Your task to perform on an android device: turn off notifications in google photos Image 0: 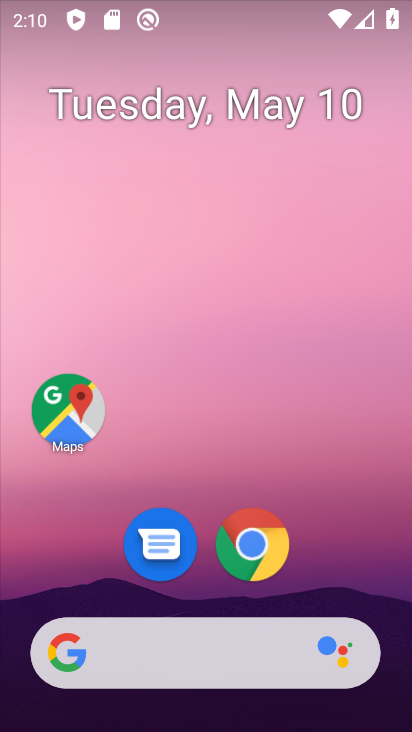
Step 0: drag from (216, 671) to (220, 140)
Your task to perform on an android device: turn off notifications in google photos Image 1: 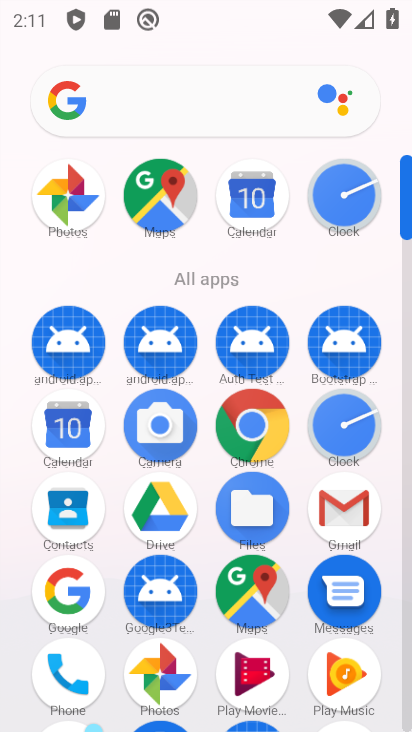
Step 1: drag from (208, 616) to (217, 271)
Your task to perform on an android device: turn off notifications in google photos Image 2: 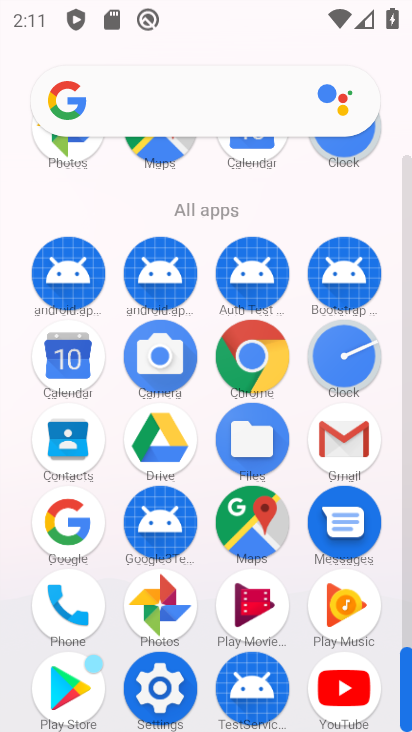
Step 2: click (165, 601)
Your task to perform on an android device: turn off notifications in google photos Image 3: 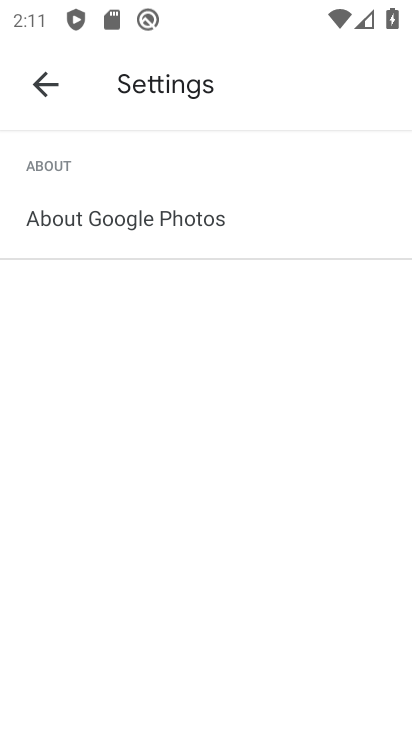
Step 3: click (45, 82)
Your task to perform on an android device: turn off notifications in google photos Image 4: 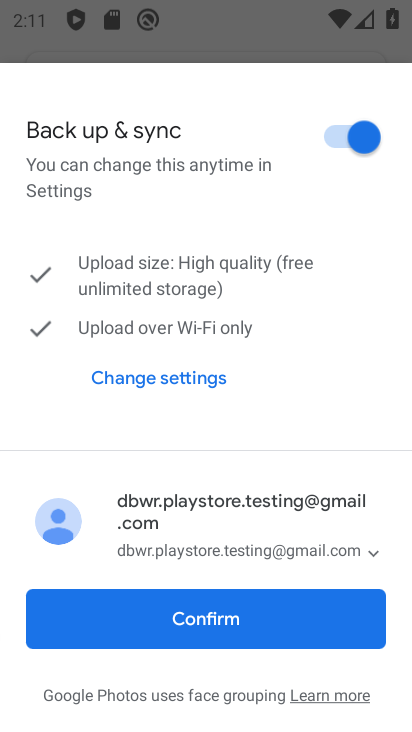
Step 4: click (205, 619)
Your task to perform on an android device: turn off notifications in google photos Image 5: 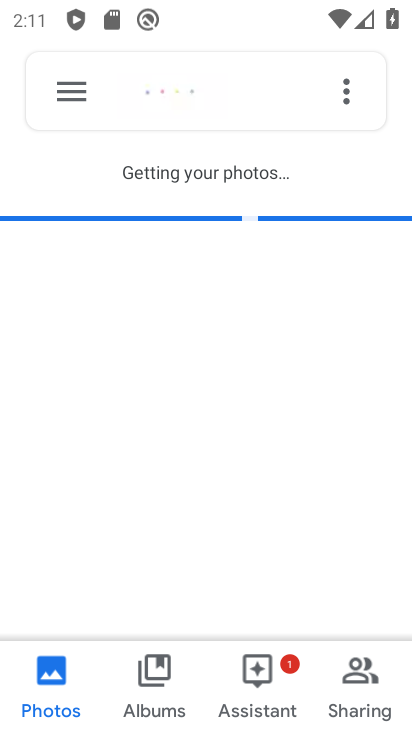
Step 5: click (66, 85)
Your task to perform on an android device: turn off notifications in google photos Image 6: 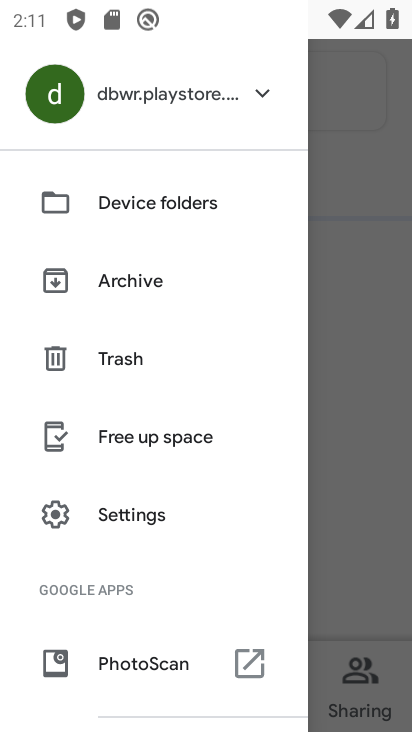
Step 6: click (133, 515)
Your task to perform on an android device: turn off notifications in google photos Image 7: 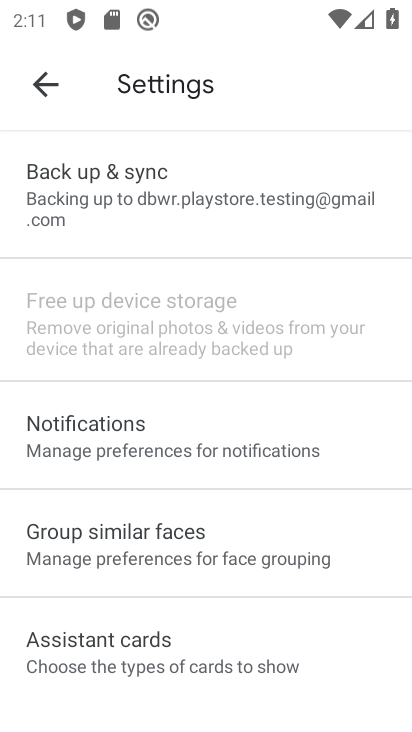
Step 7: click (152, 435)
Your task to perform on an android device: turn off notifications in google photos Image 8: 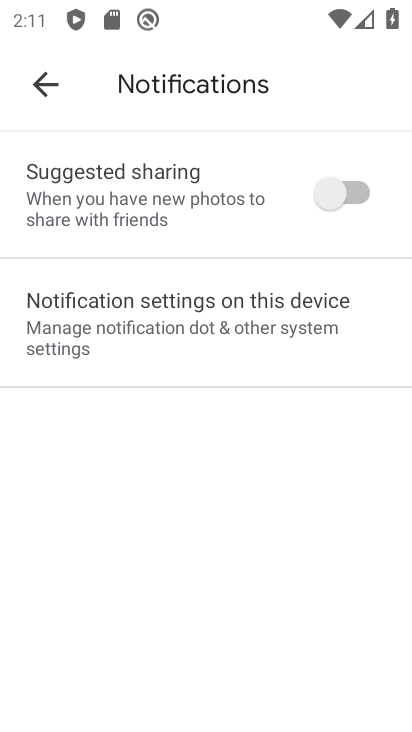
Step 8: click (275, 303)
Your task to perform on an android device: turn off notifications in google photos Image 9: 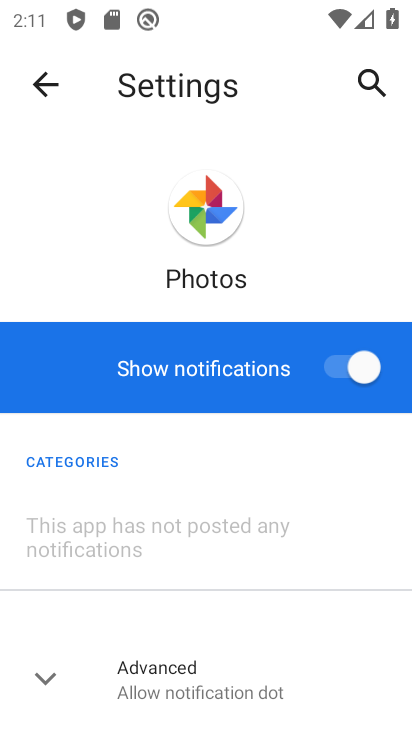
Step 9: click (330, 370)
Your task to perform on an android device: turn off notifications in google photos Image 10: 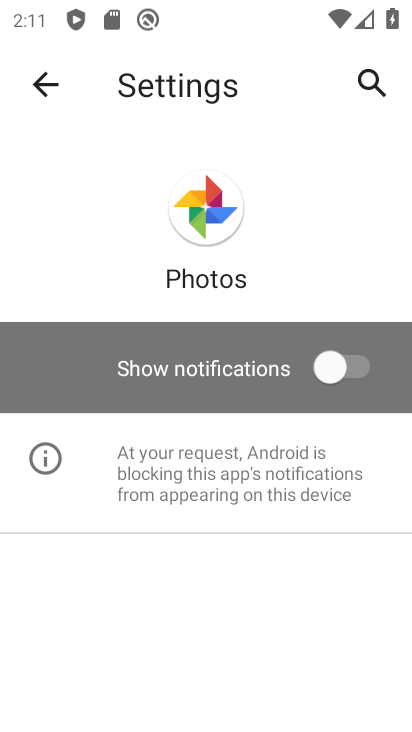
Step 10: task complete